Your task to perform on an android device: Who is the president of the United States? Image 0: 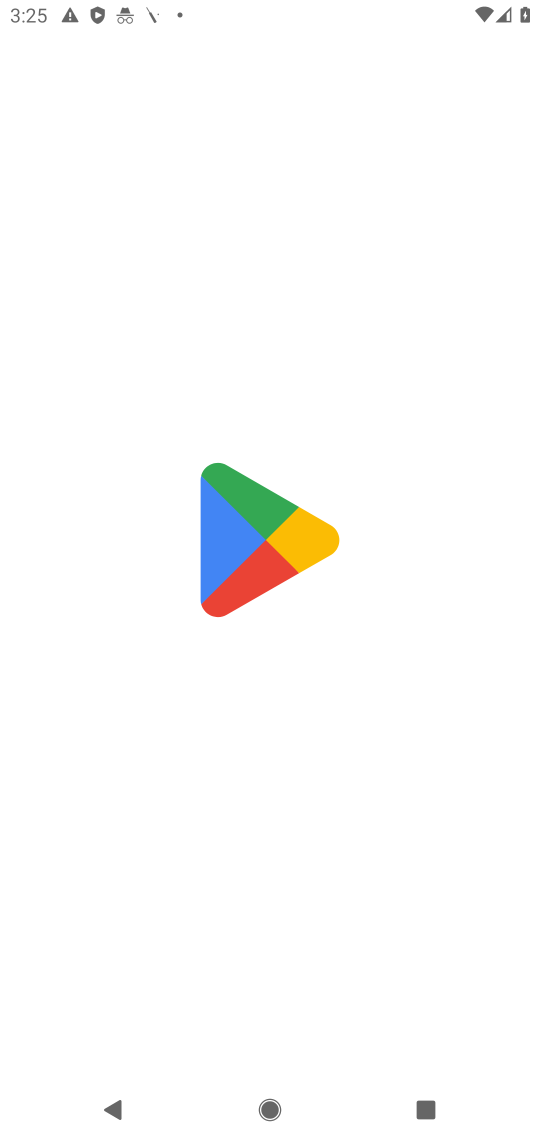
Step 0: press home button
Your task to perform on an android device: Who is the president of the United States? Image 1: 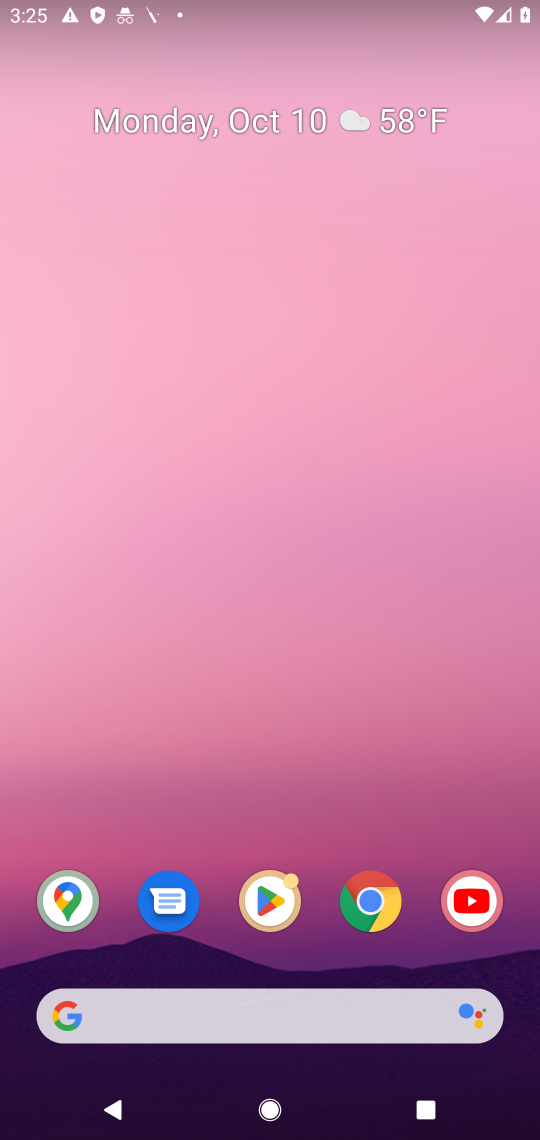
Step 1: press home button
Your task to perform on an android device: Who is the president of the United States? Image 2: 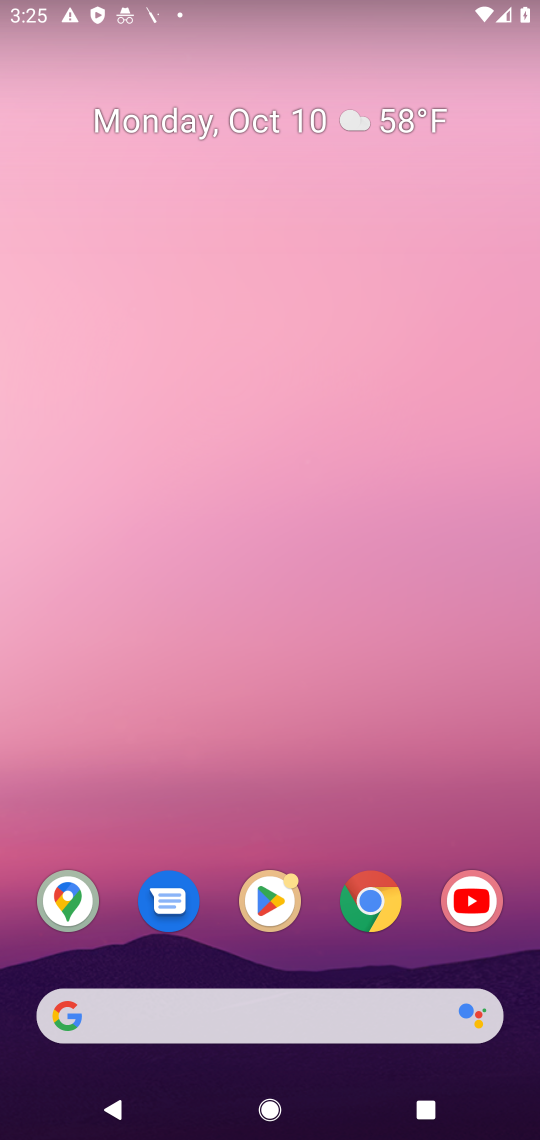
Step 2: press home button
Your task to perform on an android device: Who is the president of the United States? Image 3: 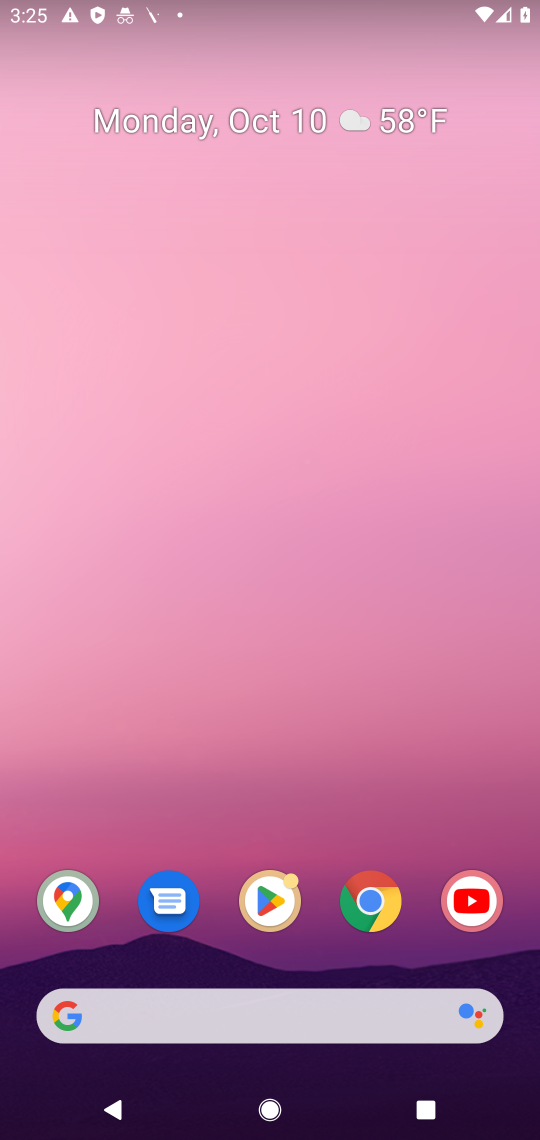
Step 3: drag from (272, 912) to (272, 359)
Your task to perform on an android device: Who is the president of the United States? Image 4: 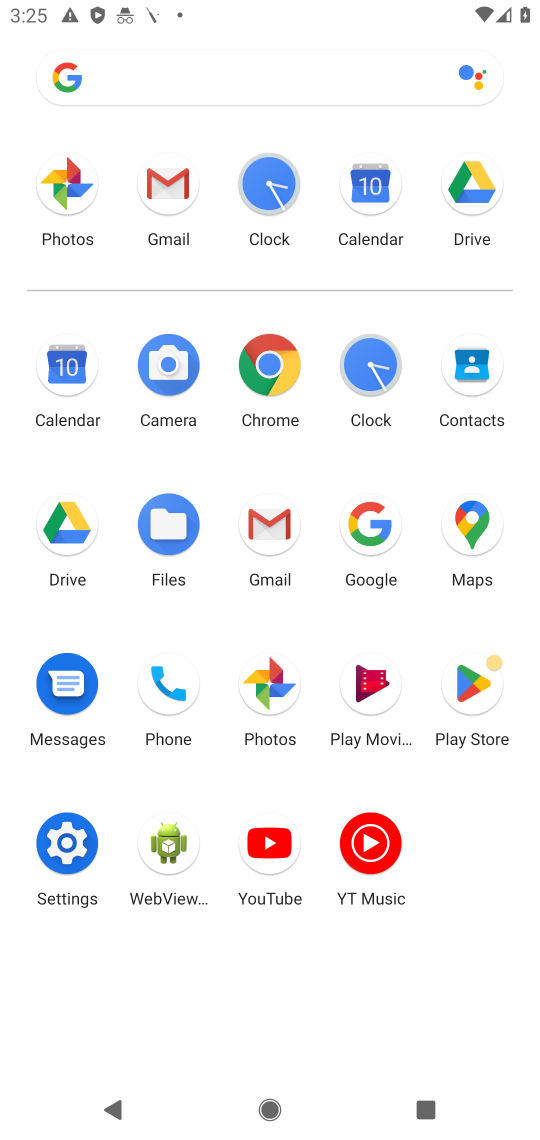
Step 4: click (272, 359)
Your task to perform on an android device: Who is the president of the United States? Image 5: 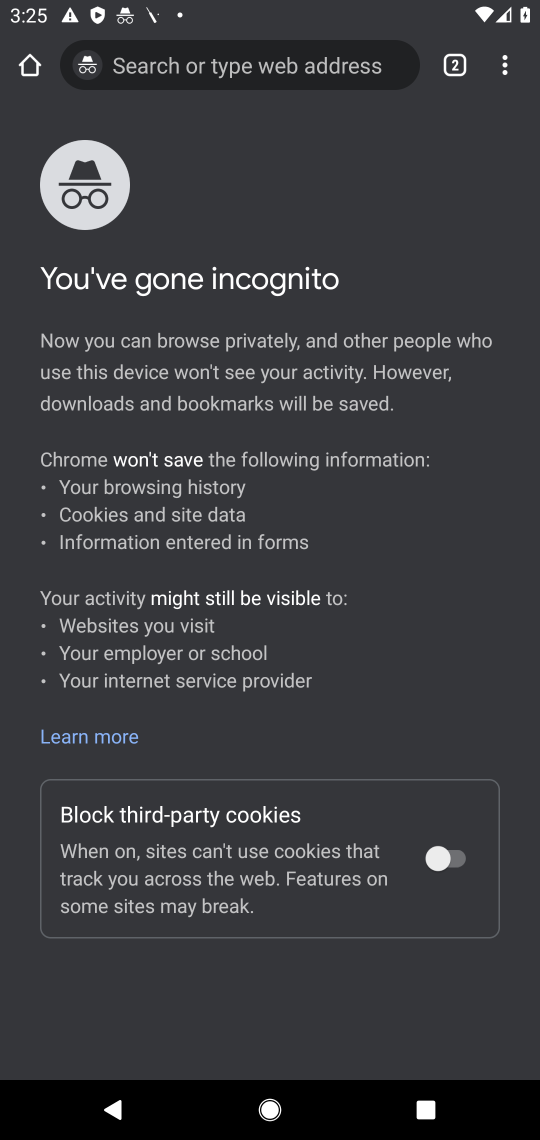
Step 5: click (296, 82)
Your task to perform on an android device: Who is the president of the United States? Image 6: 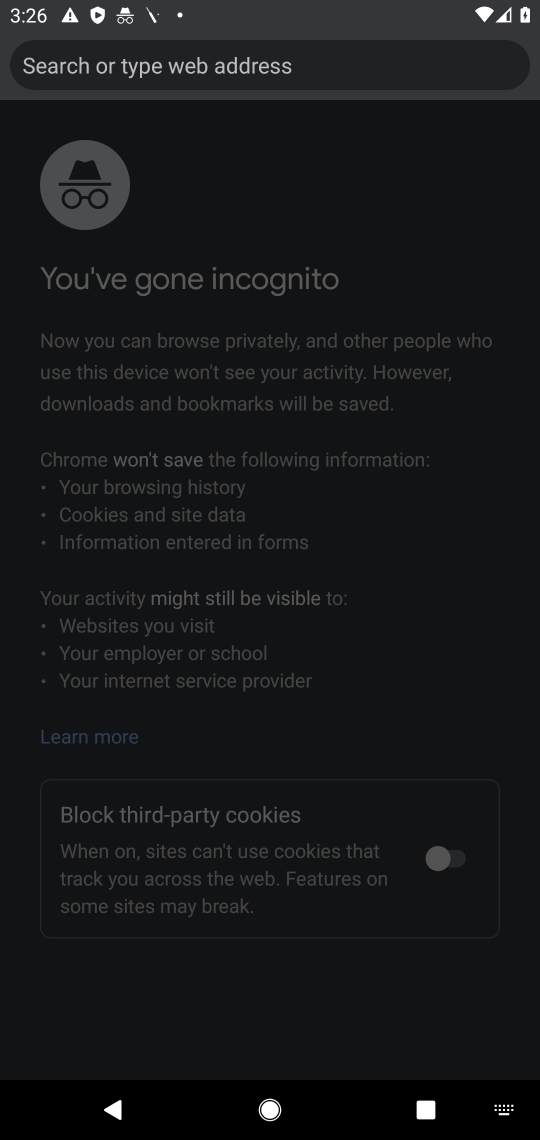
Step 6: type "Who is the president of the United States?"
Your task to perform on an android device: Who is the president of the United States? Image 7: 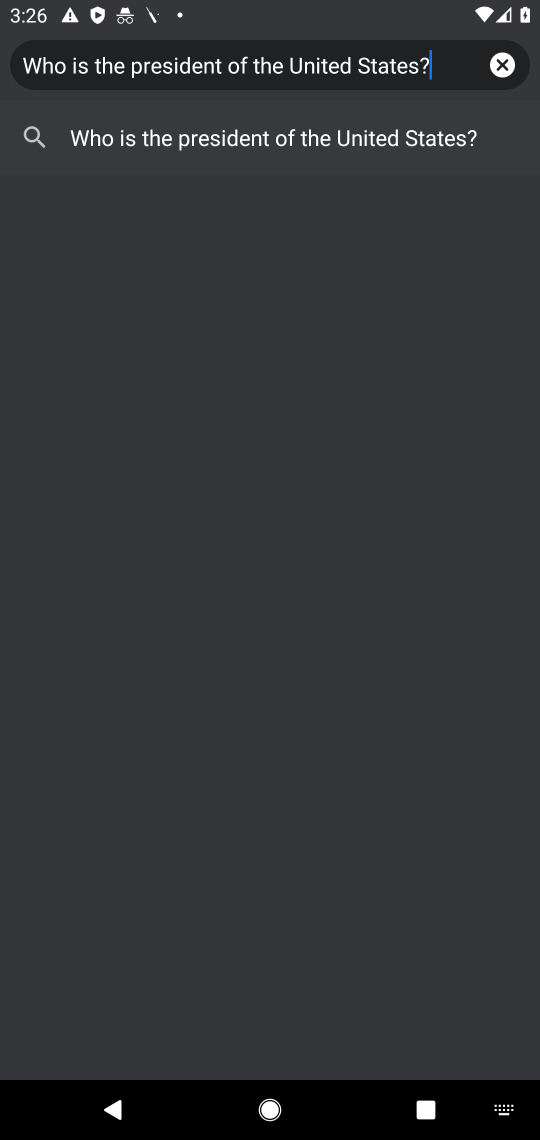
Step 7: click (336, 138)
Your task to perform on an android device: Who is the president of the United States? Image 8: 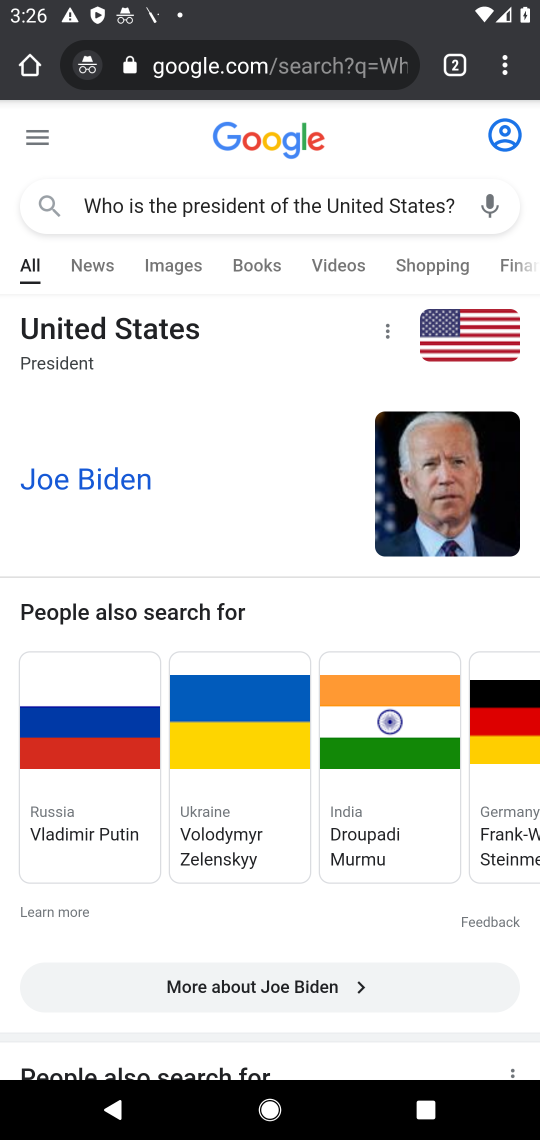
Step 8: task complete